Your task to perform on an android device: Go to Yahoo.com Image 0: 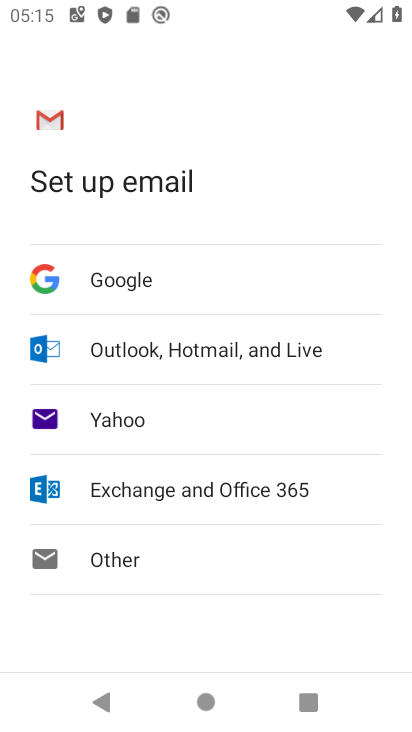
Step 0: press home button
Your task to perform on an android device: Go to Yahoo.com Image 1: 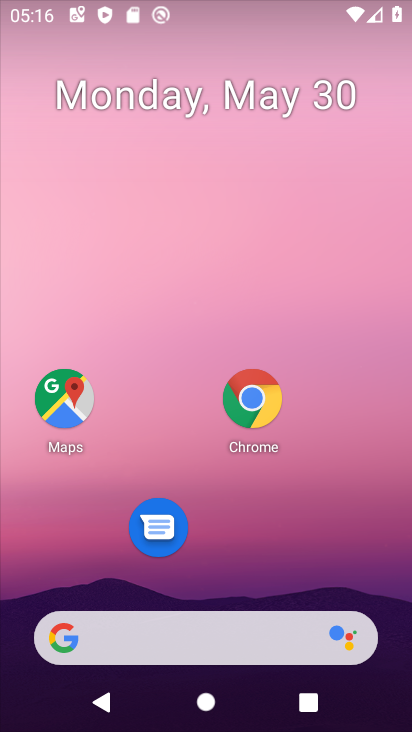
Step 1: drag from (226, 728) to (224, 138)
Your task to perform on an android device: Go to Yahoo.com Image 2: 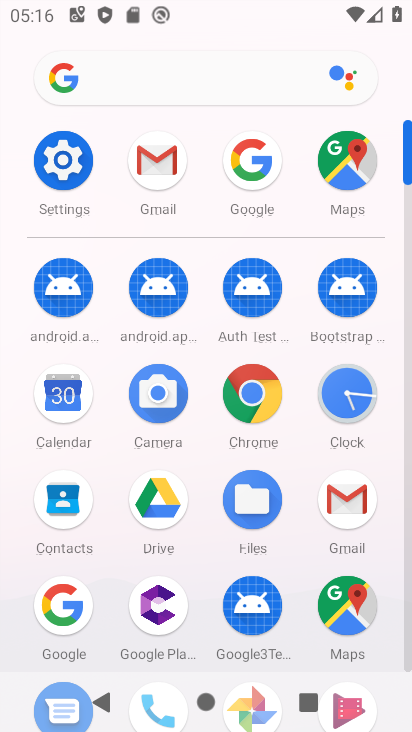
Step 2: click (251, 394)
Your task to perform on an android device: Go to Yahoo.com Image 3: 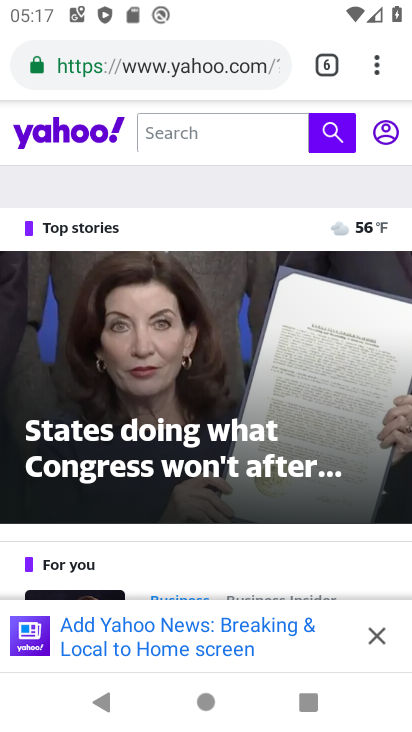
Step 3: task complete